Your task to perform on an android device: See recent photos Image 0: 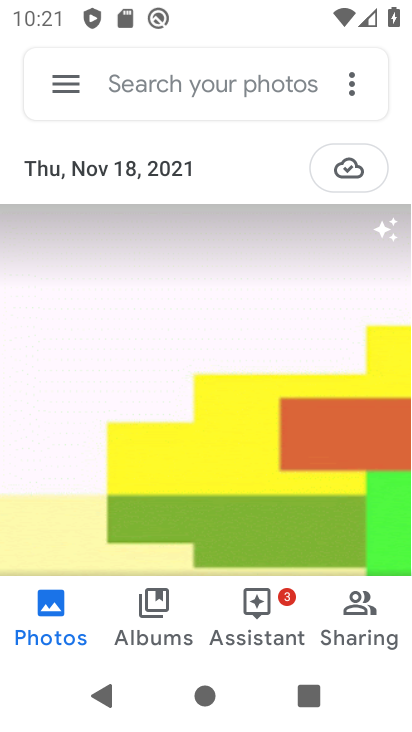
Step 0: press home button
Your task to perform on an android device: See recent photos Image 1: 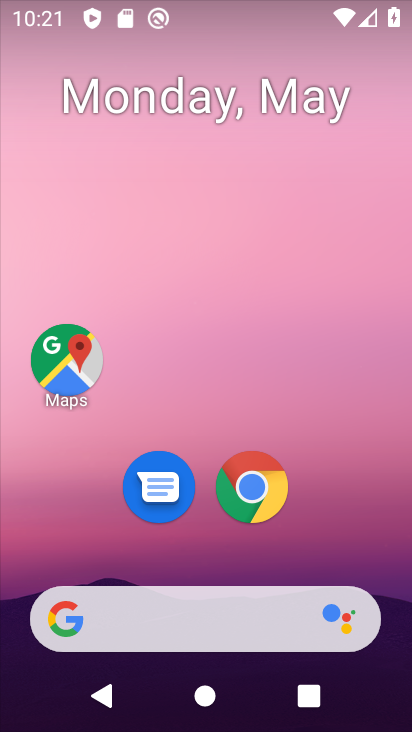
Step 1: drag from (371, 552) to (402, 261)
Your task to perform on an android device: See recent photos Image 2: 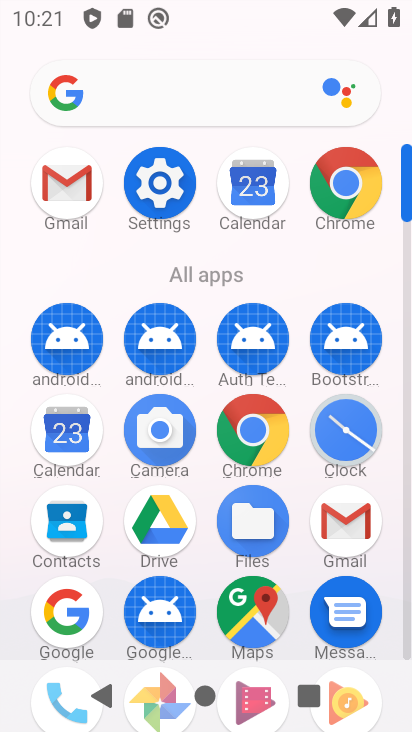
Step 2: drag from (389, 632) to (387, 451)
Your task to perform on an android device: See recent photos Image 3: 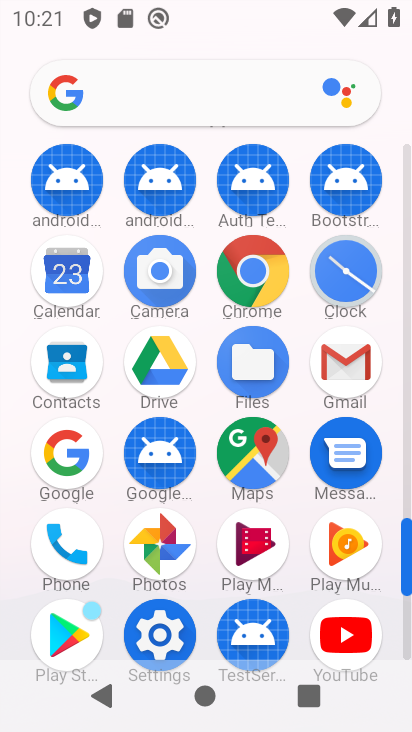
Step 3: drag from (382, 609) to (399, 473)
Your task to perform on an android device: See recent photos Image 4: 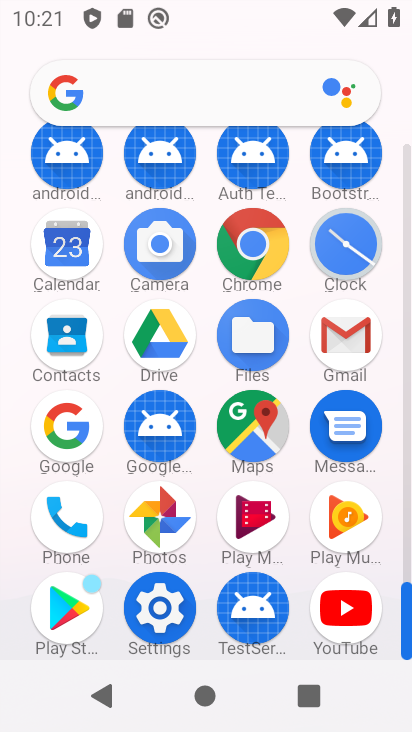
Step 4: click (166, 527)
Your task to perform on an android device: See recent photos Image 5: 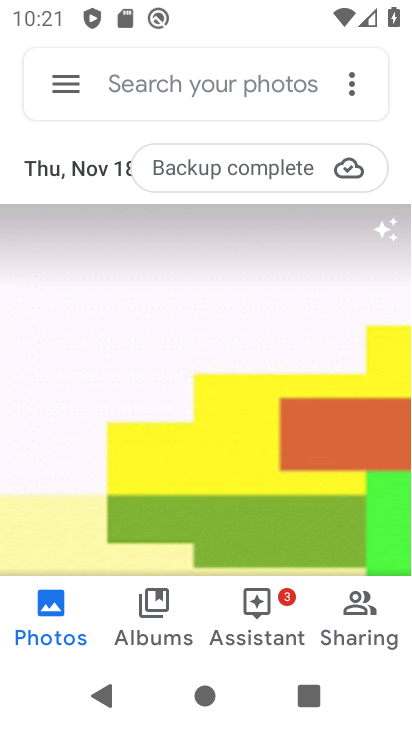
Step 5: click (199, 458)
Your task to perform on an android device: See recent photos Image 6: 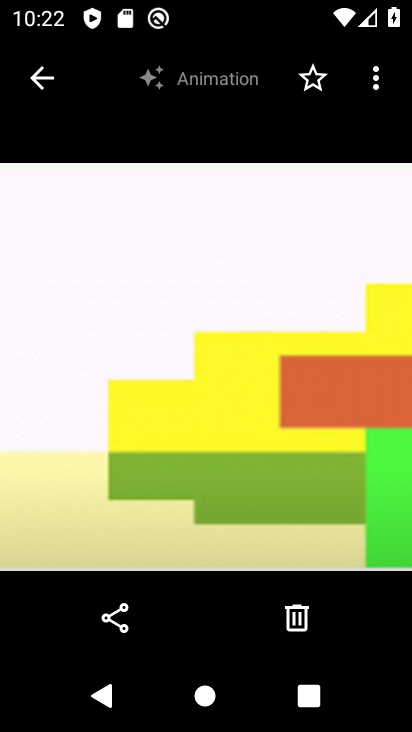
Step 6: task complete